Your task to perform on an android device: remove spam from my inbox in the gmail app Image 0: 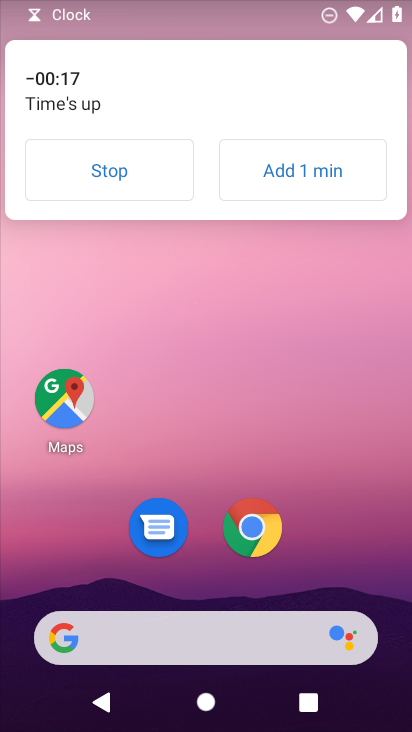
Step 0: drag from (218, 585) to (194, 55)
Your task to perform on an android device: remove spam from my inbox in the gmail app Image 1: 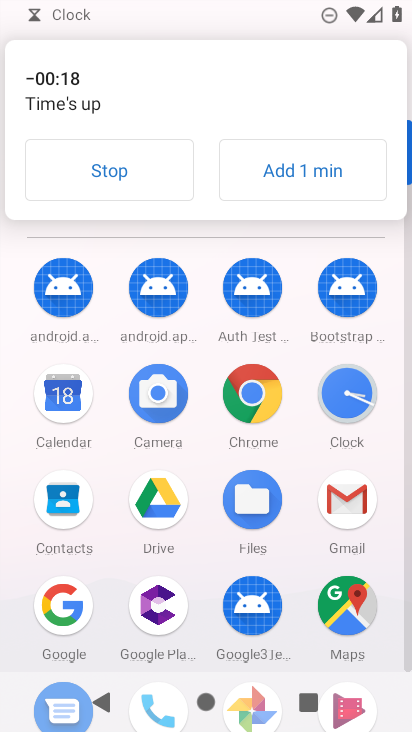
Step 1: click (129, 171)
Your task to perform on an android device: remove spam from my inbox in the gmail app Image 2: 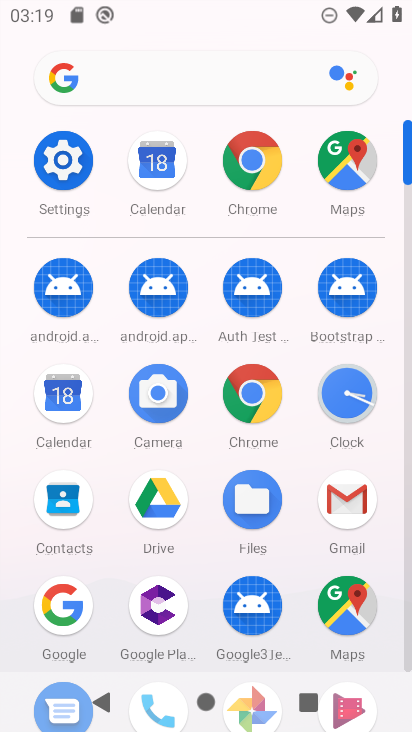
Step 2: click (340, 503)
Your task to perform on an android device: remove spam from my inbox in the gmail app Image 3: 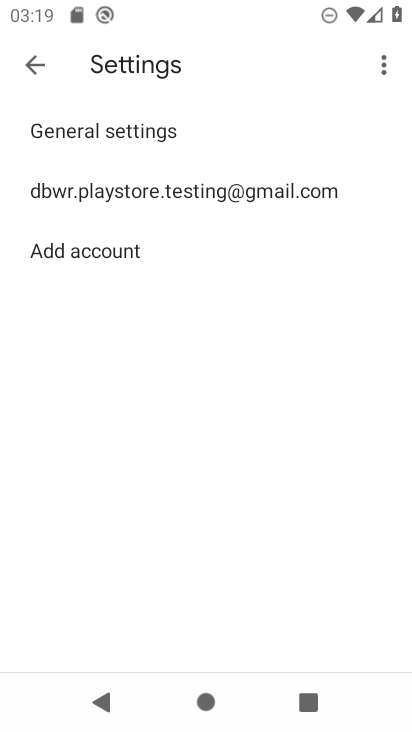
Step 3: click (23, 71)
Your task to perform on an android device: remove spam from my inbox in the gmail app Image 4: 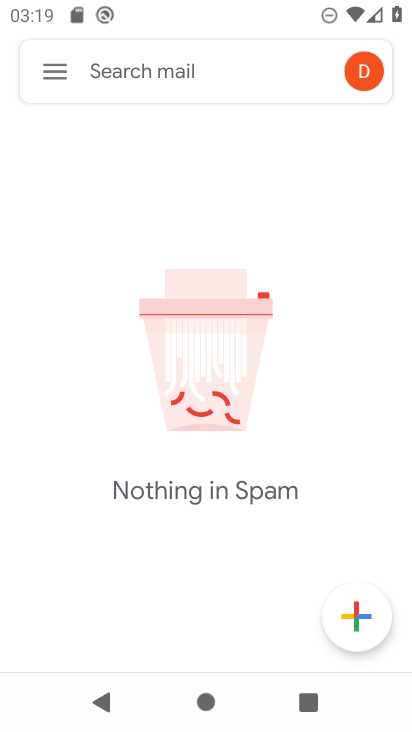
Step 4: click (46, 66)
Your task to perform on an android device: remove spam from my inbox in the gmail app Image 5: 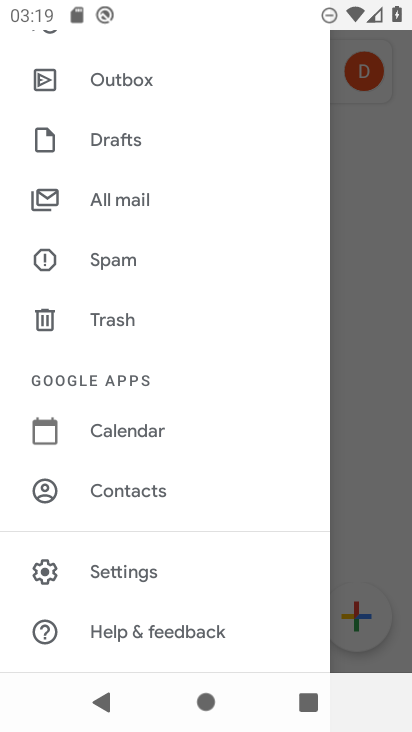
Step 5: click (102, 264)
Your task to perform on an android device: remove spam from my inbox in the gmail app Image 6: 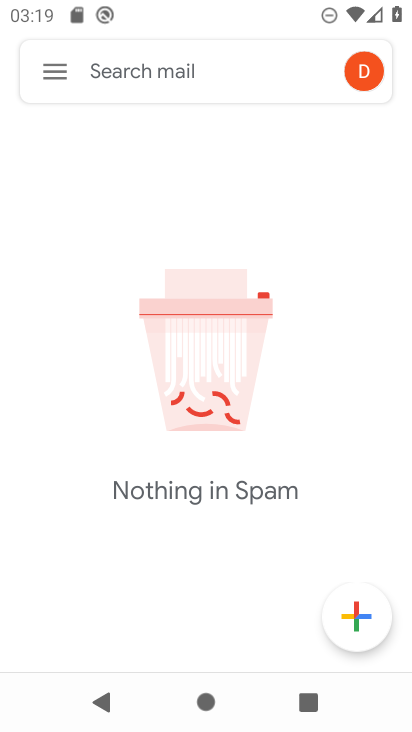
Step 6: task complete